Your task to perform on an android device: Go to display settings Image 0: 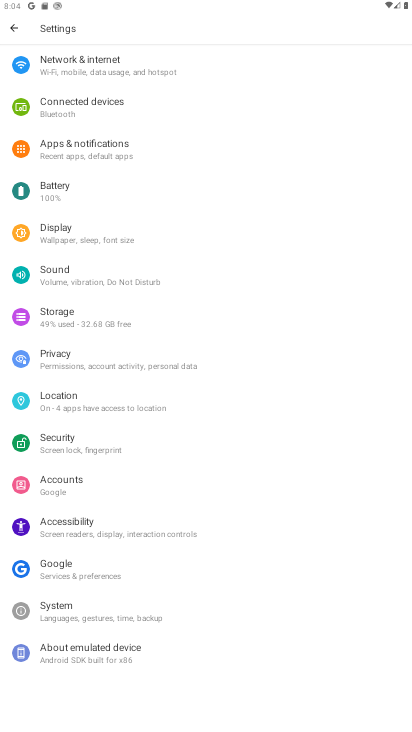
Step 0: click (81, 237)
Your task to perform on an android device: Go to display settings Image 1: 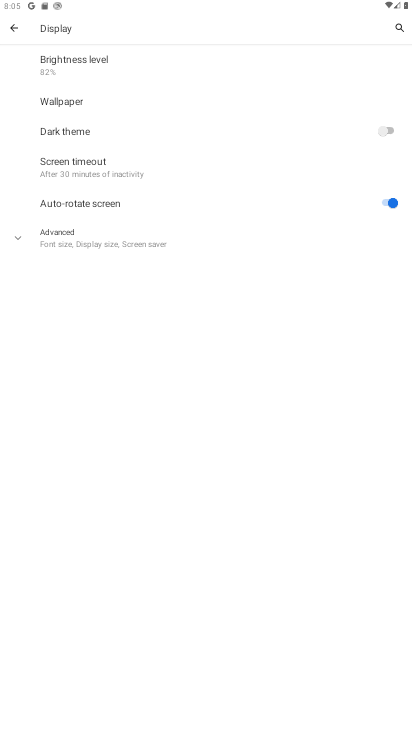
Step 1: task complete